Your task to perform on an android device: Open the map Image 0: 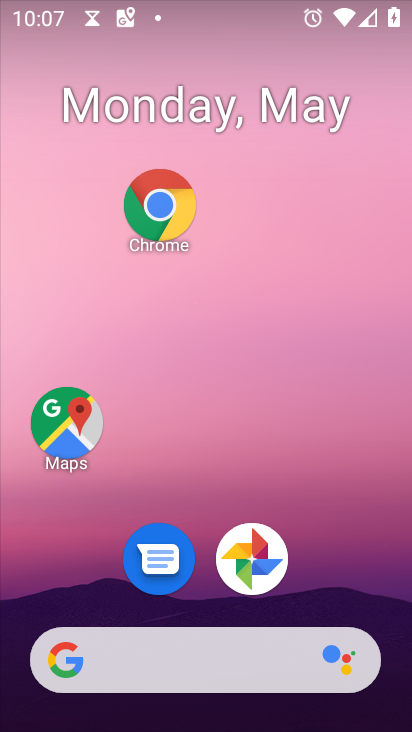
Step 0: drag from (244, 697) to (148, 296)
Your task to perform on an android device: Open the map Image 1: 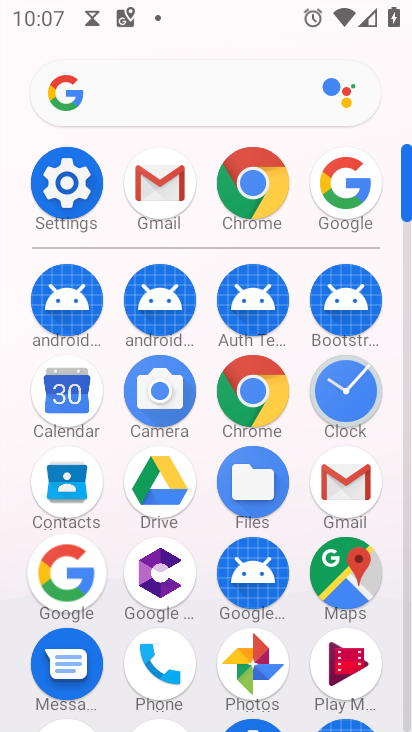
Step 1: click (339, 569)
Your task to perform on an android device: Open the map Image 2: 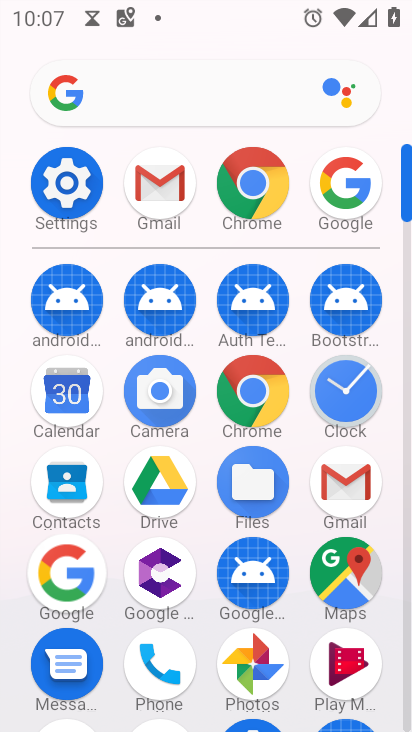
Step 2: click (341, 571)
Your task to perform on an android device: Open the map Image 3: 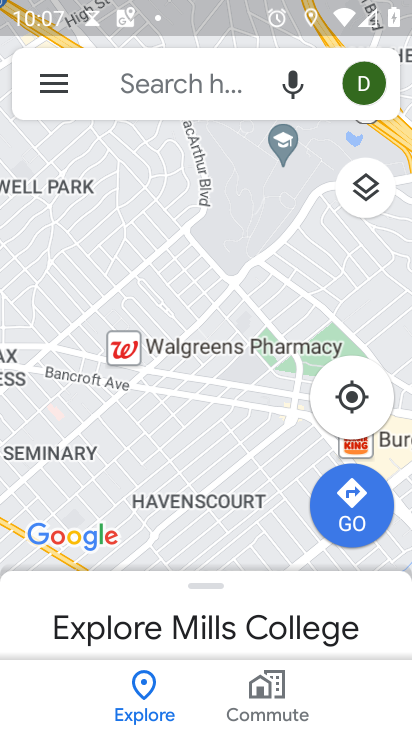
Step 3: click (98, 73)
Your task to perform on an android device: Open the map Image 4: 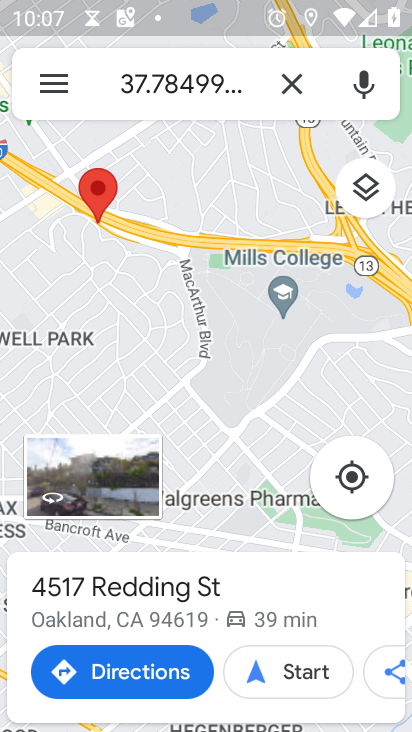
Step 4: click (299, 85)
Your task to perform on an android device: Open the map Image 5: 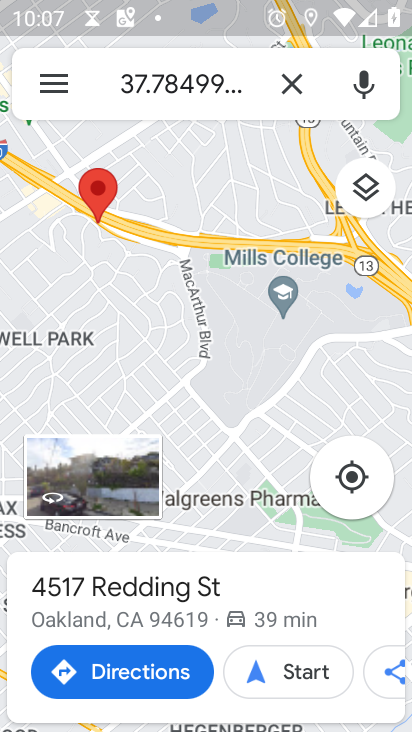
Step 5: click (299, 85)
Your task to perform on an android device: Open the map Image 6: 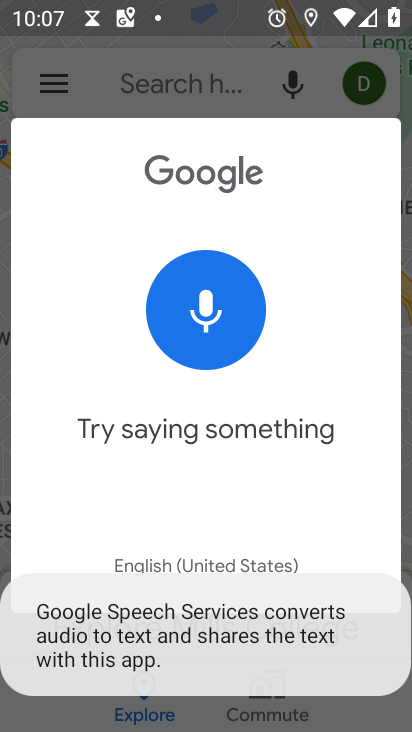
Step 6: click (129, 81)
Your task to perform on an android device: Open the map Image 7: 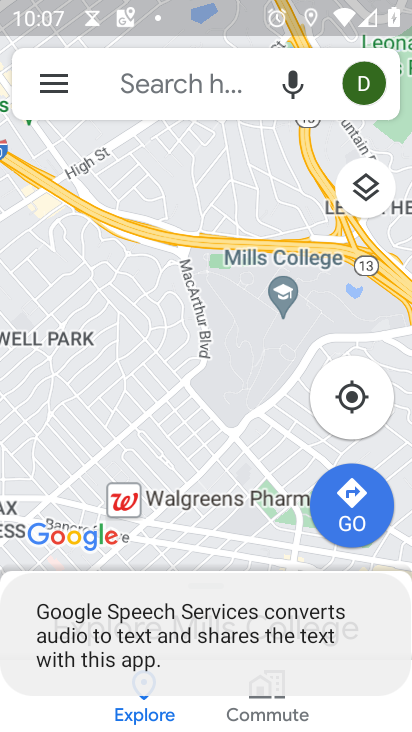
Step 7: click (141, 84)
Your task to perform on an android device: Open the map Image 8: 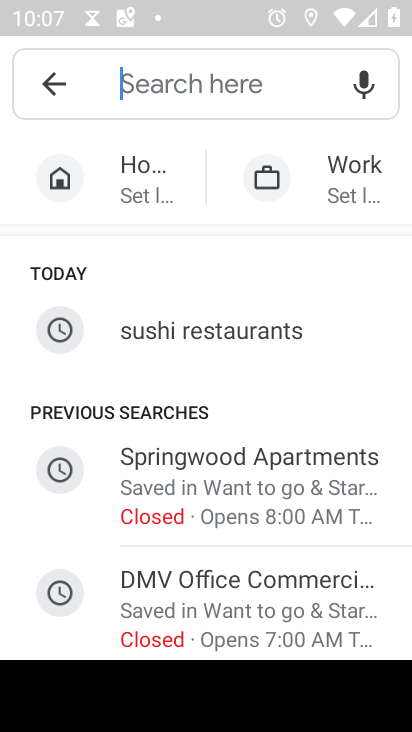
Step 8: click (218, 339)
Your task to perform on an android device: Open the map Image 9: 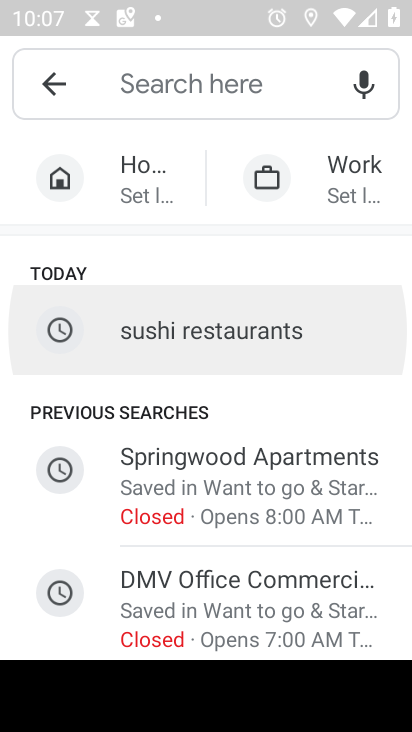
Step 9: click (219, 339)
Your task to perform on an android device: Open the map Image 10: 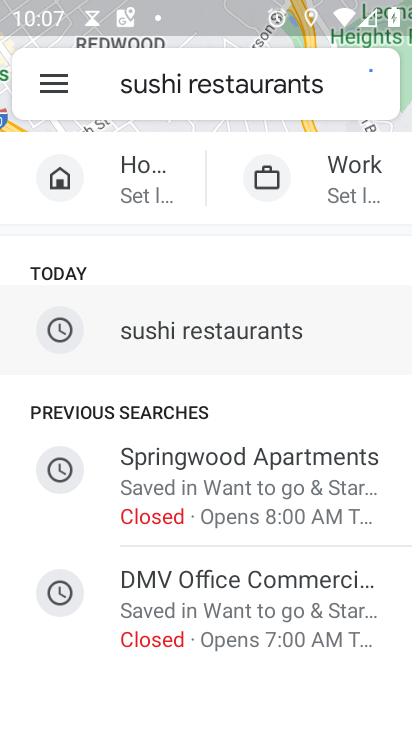
Step 10: click (219, 337)
Your task to perform on an android device: Open the map Image 11: 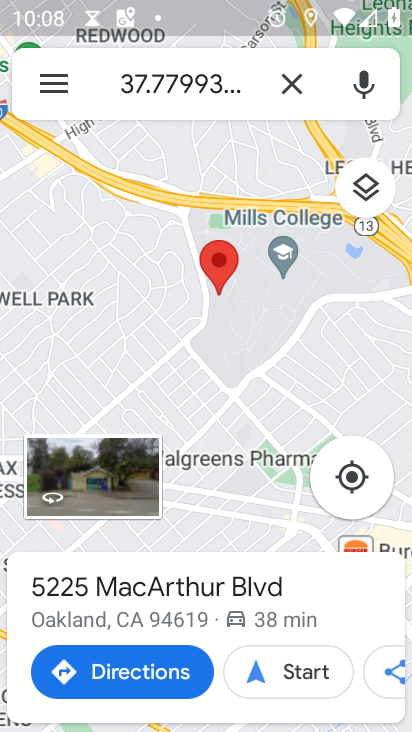
Step 11: press back button
Your task to perform on an android device: Open the map Image 12: 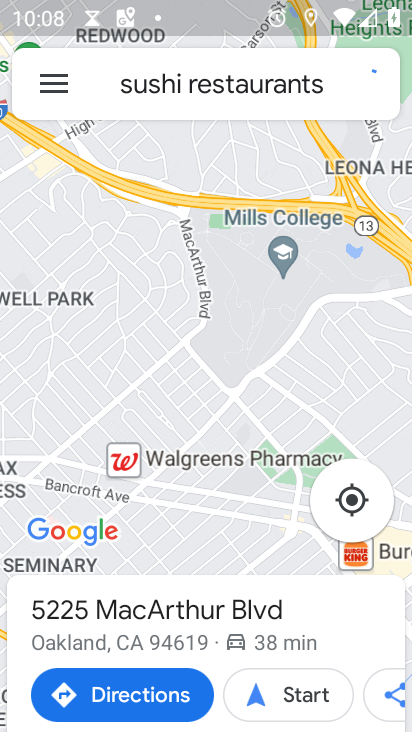
Step 12: press back button
Your task to perform on an android device: Open the map Image 13: 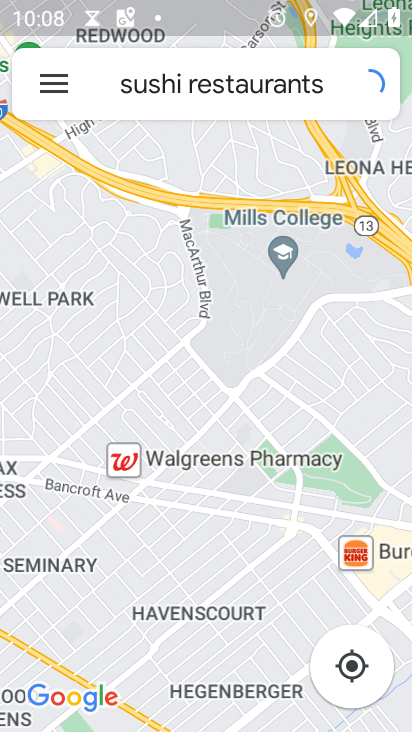
Step 13: click (279, 80)
Your task to perform on an android device: Open the map Image 14: 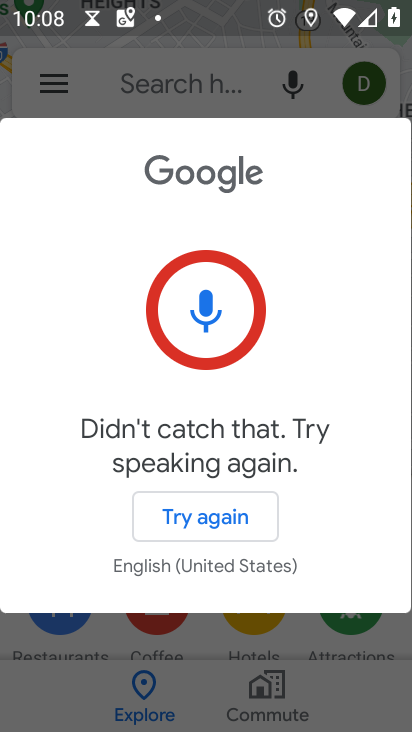
Step 14: click (120, 90)
Your task to perform on an android device: Open the map Image 15: 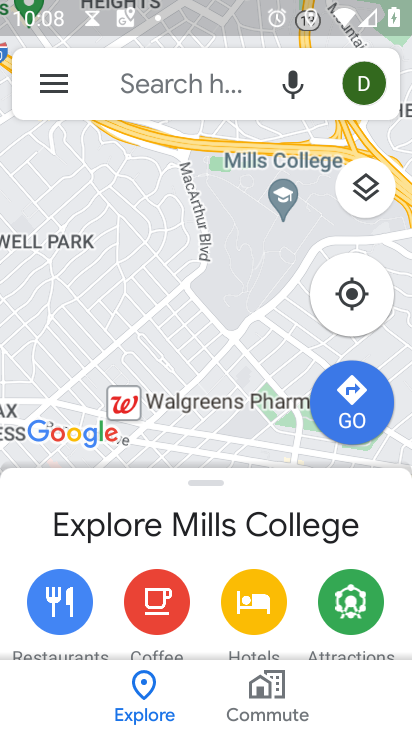
Step 15: task complete